Your task to perform on an android device: change notification settings in the gmail app Image 0: 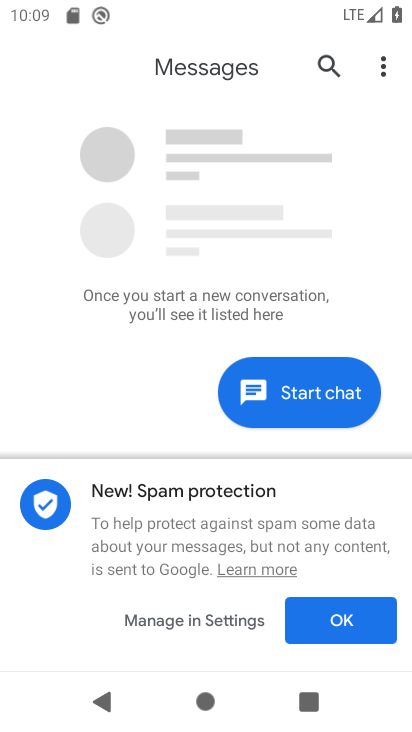
Step 0: press home button
Your task to perform on an android device: change notification settings in the gmail app Image 1: 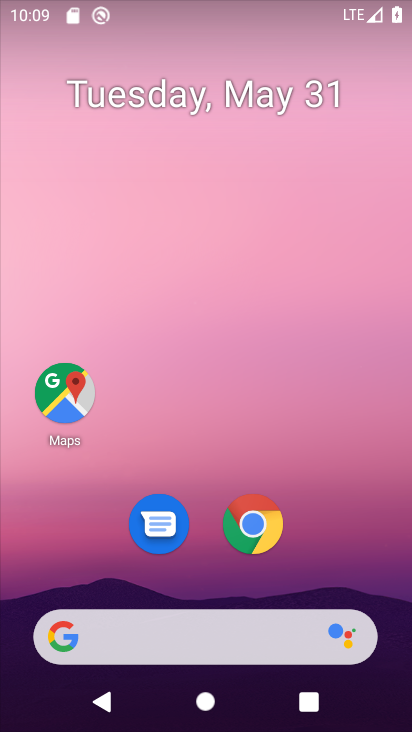
Step 1: drag from (287, 473) to (267, 13)
Your task to perform on an android device: change notification settings in the gmail app Image 2: 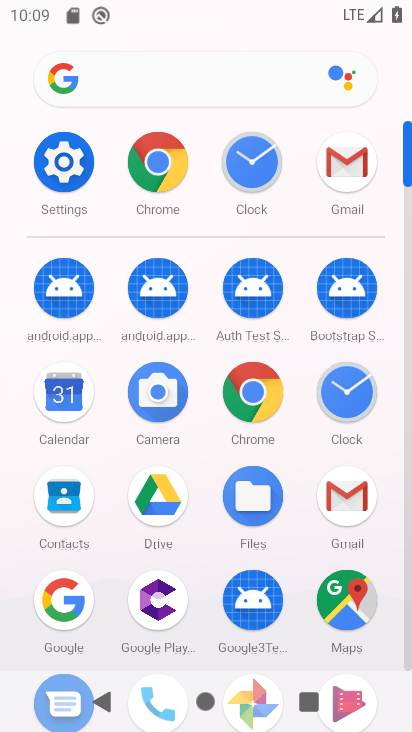
Step 2: click (341, 154)
Your task to perform on an android device: change notification settings in the gmail app Image 3: 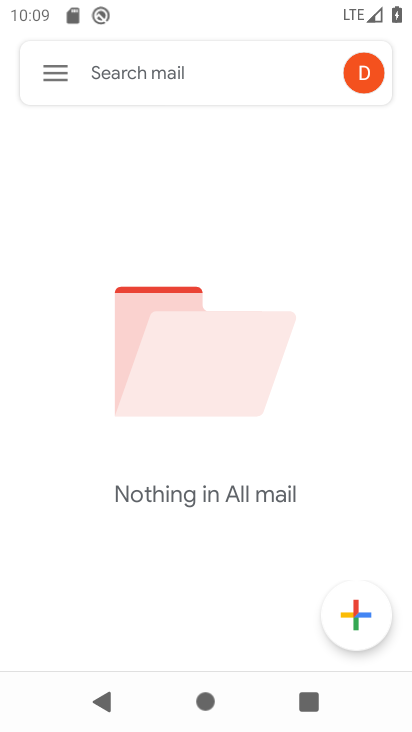
Step 3: click (54, 70)
Your task to perform on an android device: change notification settings in the gmail app Image 4: 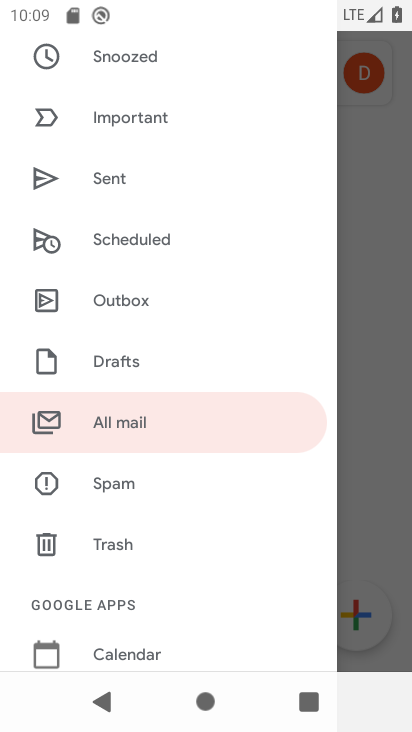
Step 4: drag from (163, 464) to (217, 198)
Your task to perform on an android device: change notification settings in the gmail app Image 5: 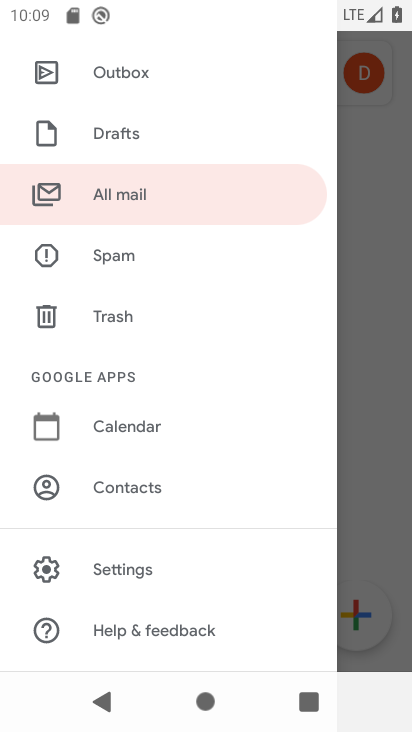
Step 5: click (131, 565)
Your task to perform on an android device: change notification settings in the gmail app Image 6: 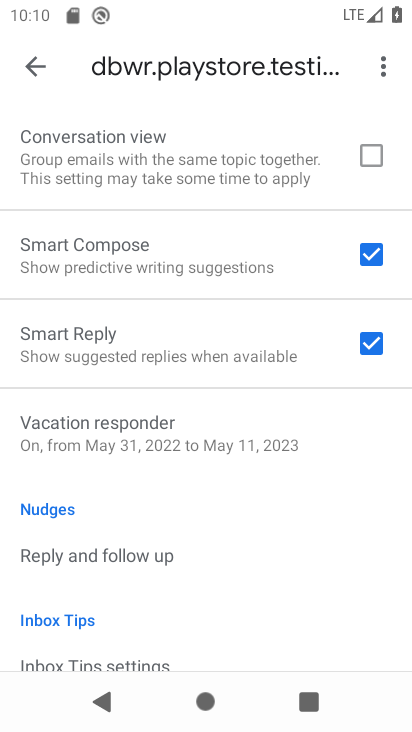
Step 6: drag from (230, 258) to (200, 673)
Your task to perform on an android device: change notification settings in the gmail app Image 7: 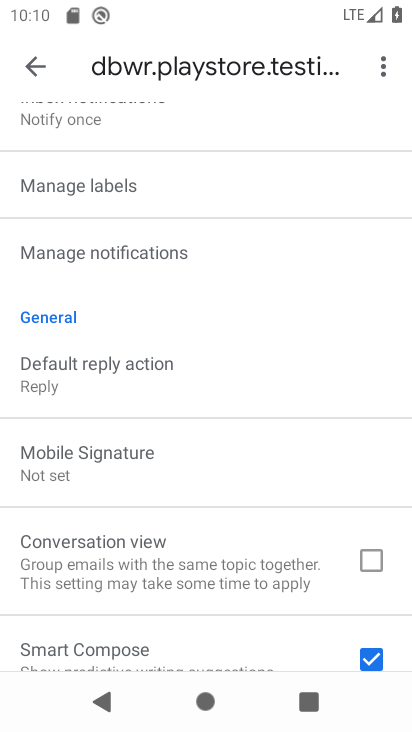
Step 7: click (235, 251)
Your task to perform on an android device: change notification settings in the gmail app Image 8: 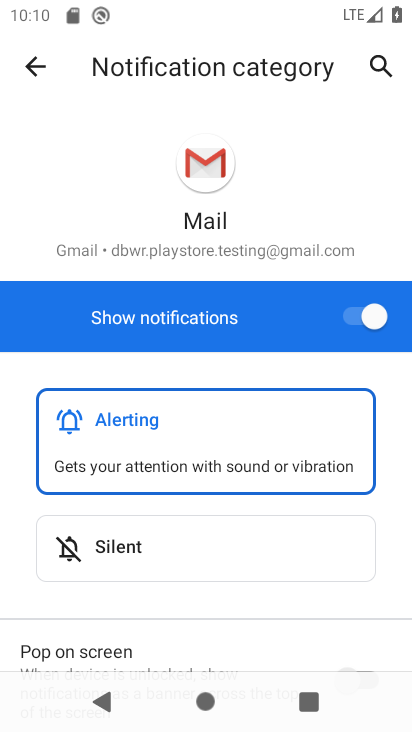
Step 8: click (370, 308)
Your task to perform on an android device: change notification settings in the gmail app Image 9: 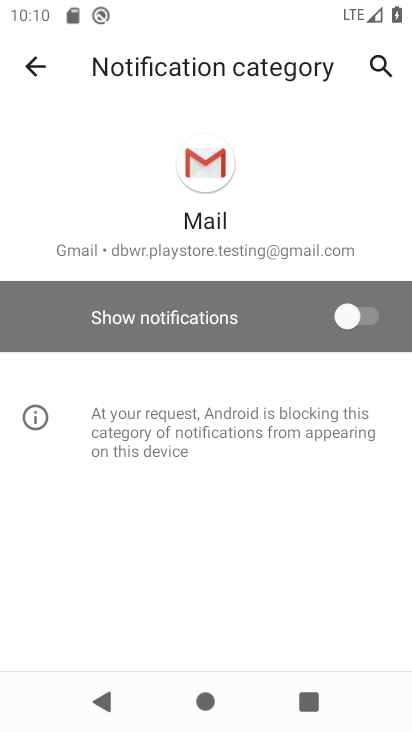
Step 9: task complete